Your task to perform on an android device: Open Youtube and go to "Your channel" Image 0: 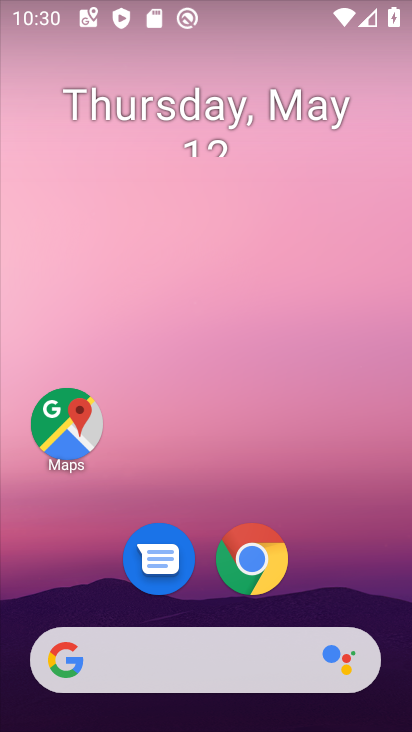
Step 0: drag from (197, 603) to (162, 187)
Your task to perform on an android device: Open Youtube and go to "Your channel" Image 1: 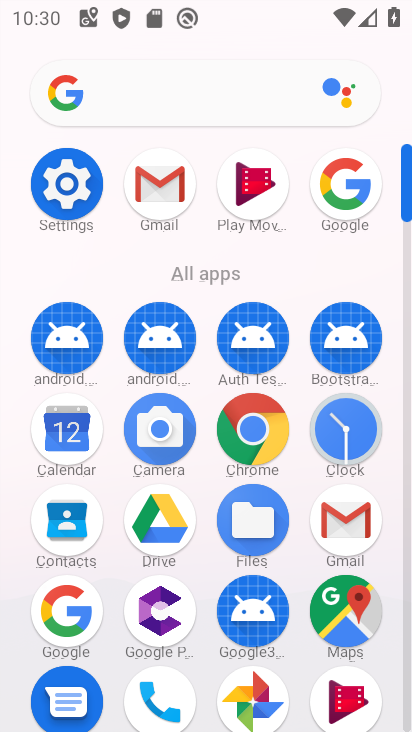
Step 1: drag from (207, 632) to (224, 258)
Your task to perform on an android device: Open Youtube and go to "Your channel" Image 2: 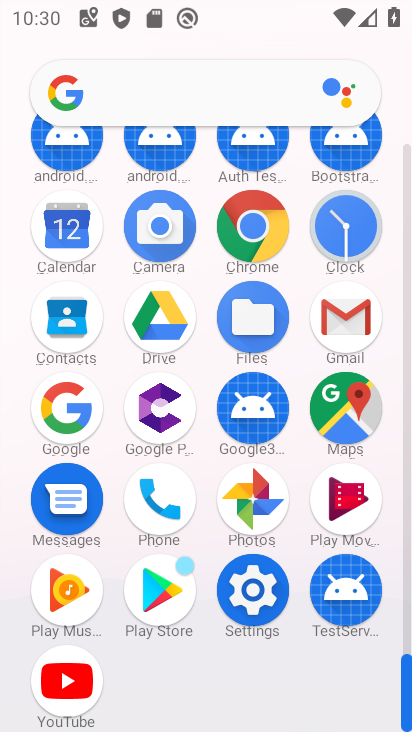
Step 2: click (50, 700)
Your task to perform on an android device: Open Youtube and go to "Your channel" Image 3: 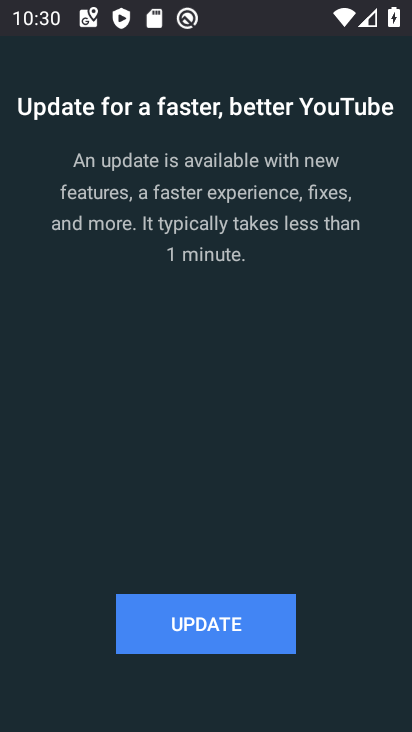
Step 3: click (220, 604)
Your task to perform on an android device: Open Youtube and go to "Your channel" Image 4: 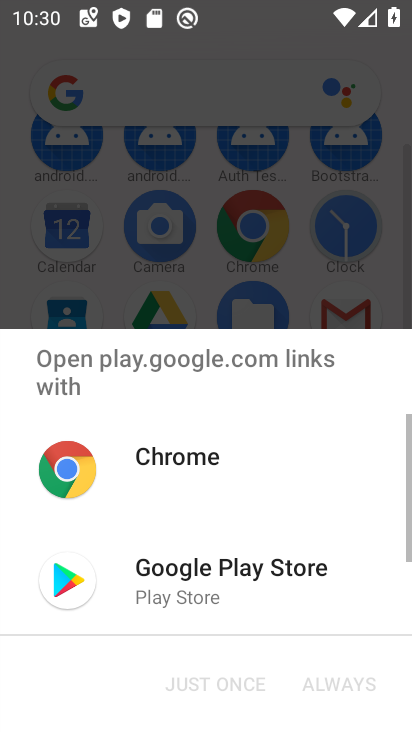
Step 4: click (199, 589)
Your task to perform on an android device: Open Youtube and go to "Your channel" Image 5: 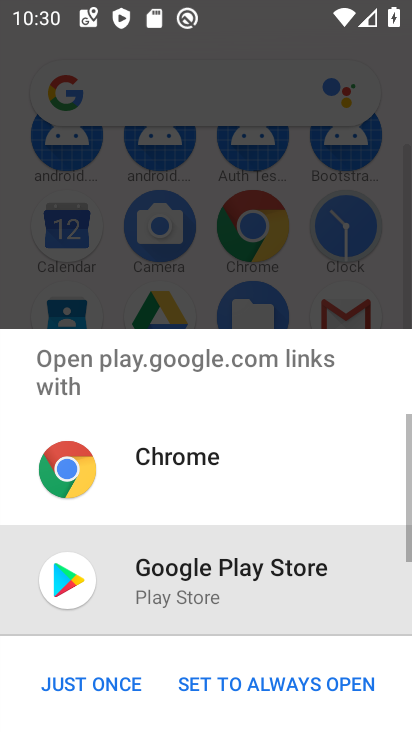
Step 5: click (82, 688)
Your task to perform on an android device: Open Youtube and go to "Your channel" Image 6: 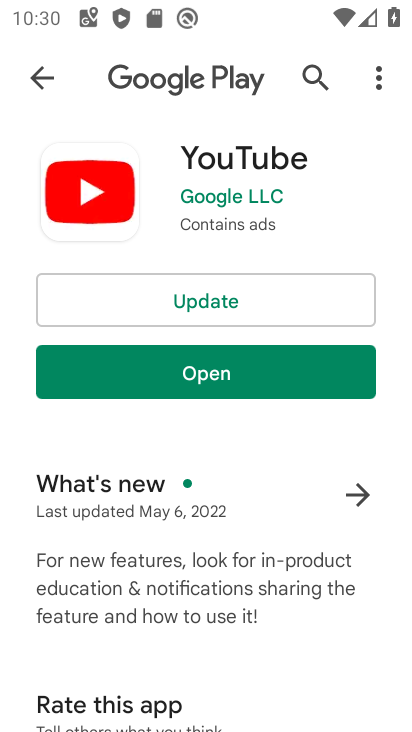
Step 6: click (193, 308)
Your task to perform on an android device: Open Youtube and go to "Your channel" Image 7: 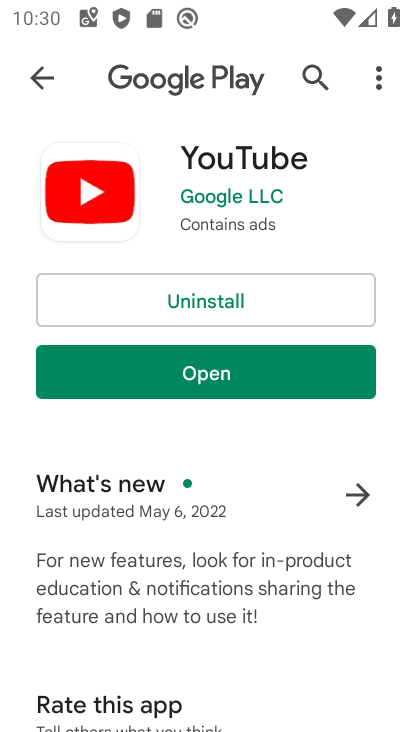
Step 7: click (222, 375)
Your task to perform on an android device: Open Youtube and go to "Your channel" Image 8: 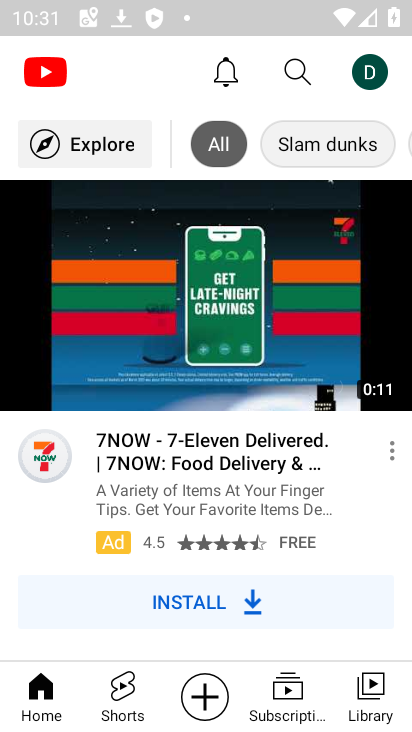
Step 8: click (380, 78)
Your task to perform on an android device: Open Youtube and go to "Your channel" Image 9: 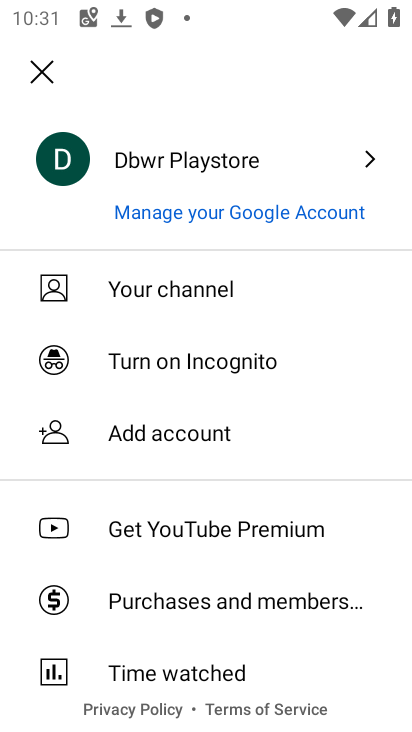
Step 9: click (184, 276)
Your task to perform on an android device: Open Youtube and go to "Your channel" Image 10: 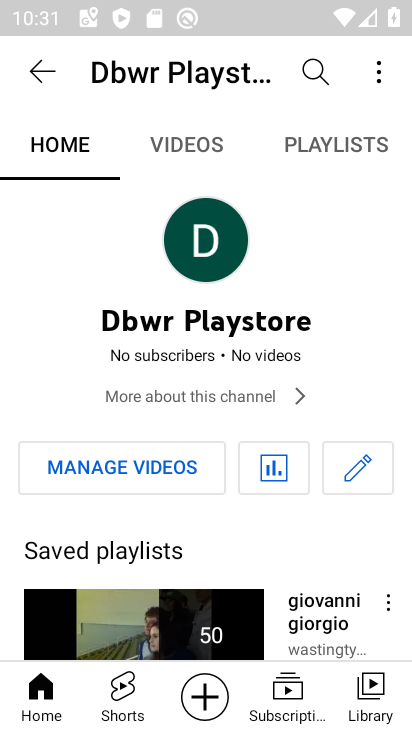
Step 10: task complete